Your task to perform on an android device: Open Yahoo.com Image 0: 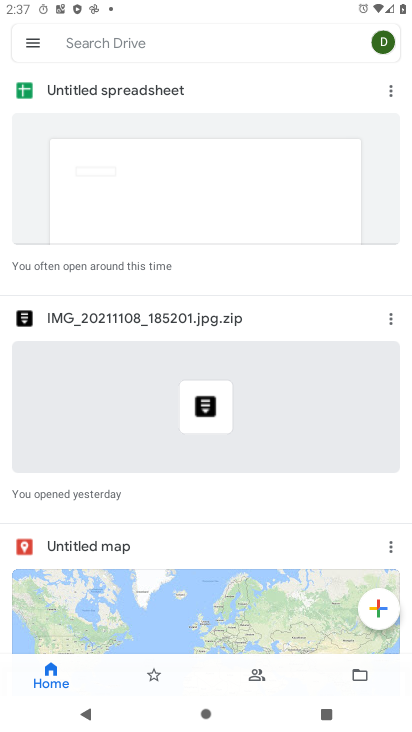
Step 0: press home button
Your task to perform on an android device: Open Yahoo.com Image 1: 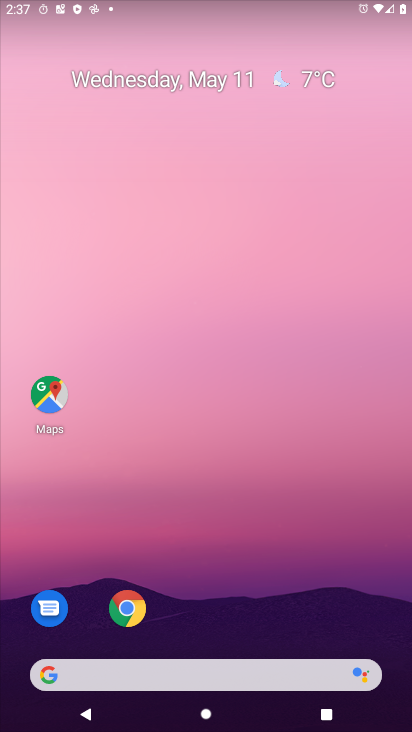
Step 1: drag from (231, 531) to (267, 76)
Your task to perform on an android device: Open Yahoo.com Image 2: 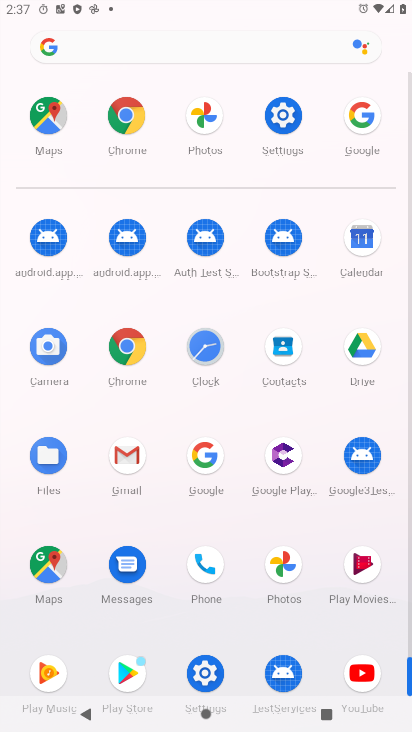
Step 2: drag from (243, 519) to (258, 267)
Your task to perform on an android device: Open Yahoo.com Image 3: 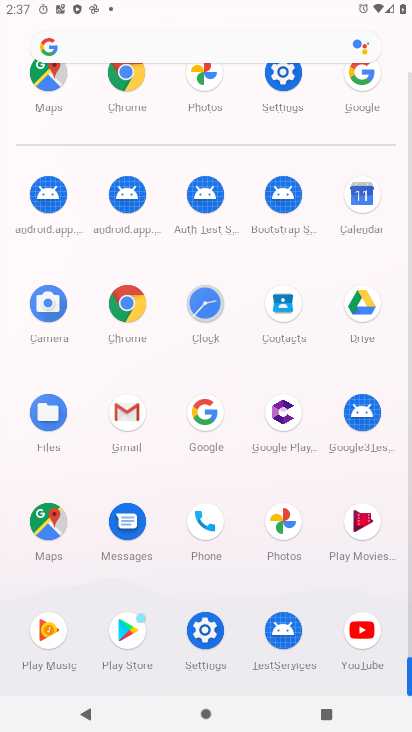
Step 3: click (124, 301)
Your task to perform on an android device: Open Yahoo.com Image 4: 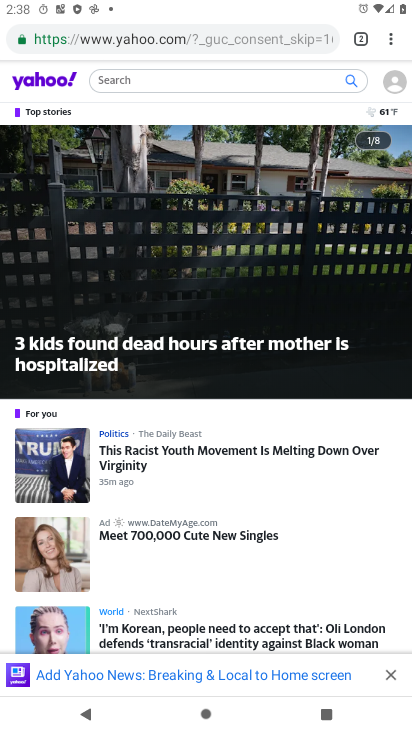
Step 4: task complete